Your task to perform on an android device: Go to Reddit.com Image 0: 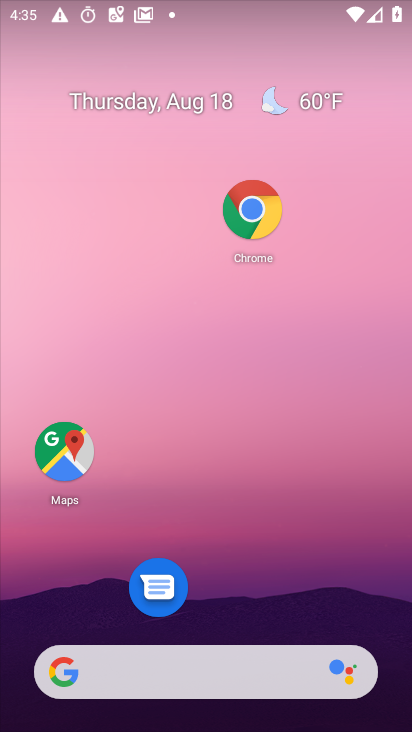
Step 0: drag from (319, 607) to (349, 17)
Your task to perform on an android device: Go to Reddit.com Image 1: 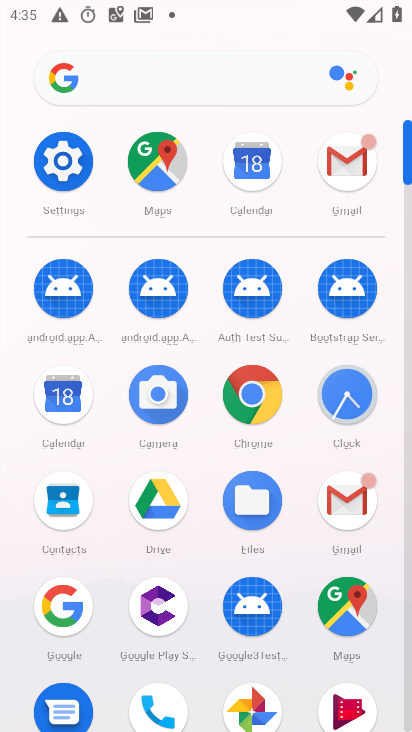
Step 1: click (254, 389)
Your task to perform on an android device: Go to Reddit.com Image 2: 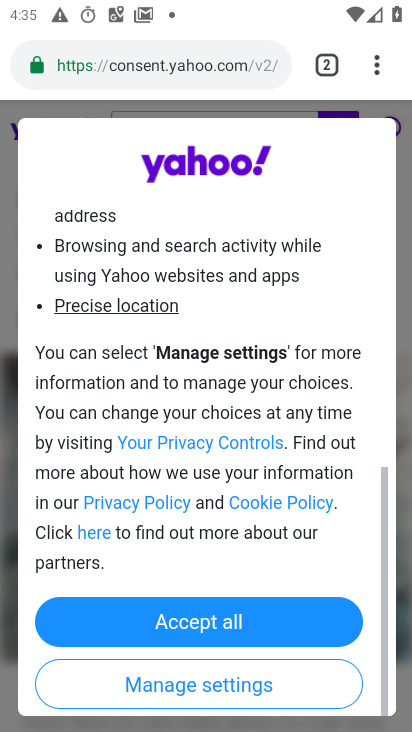
Step 2: click (249, 629)
Your task to perform on an android device: Go to Reddit.com Image 3: 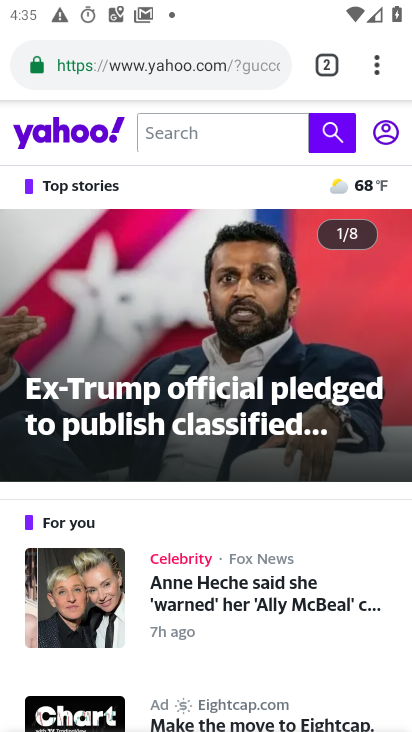
Step 3: click (224, 67)
Your task to perform on an android device: Go to Reddit.com Image 4: 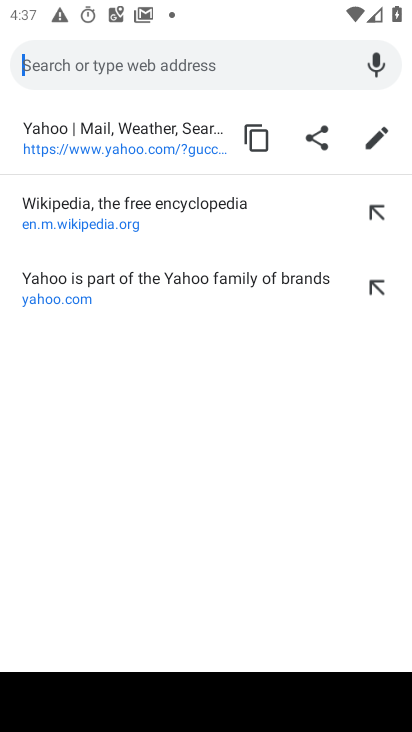
Step 4: type "Reddit.com"
Your task to perform on an android device: Go to Reddit.com Image 5: 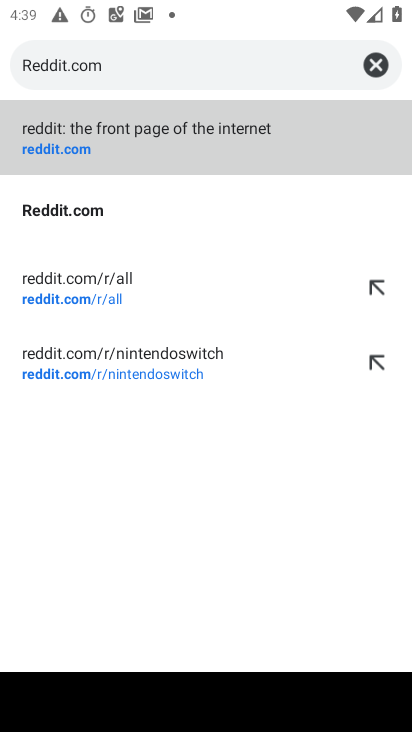
Step 5: click (66, 146)
Your task to perform on an android device: Go to Reddit.com Image 6: 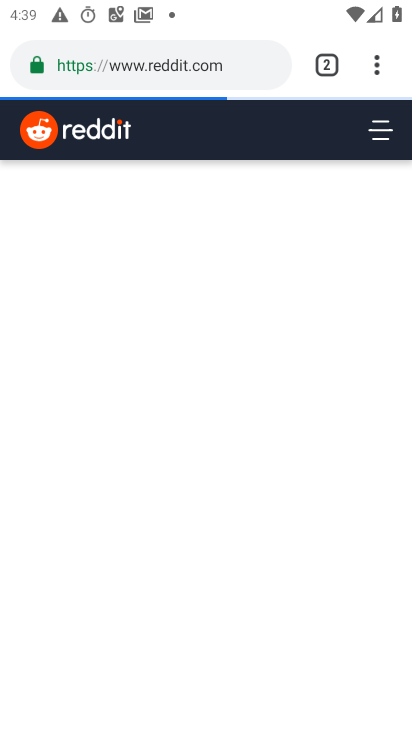
Step 6: task complete